Your task to perform on an android device: Open the map Image 0: 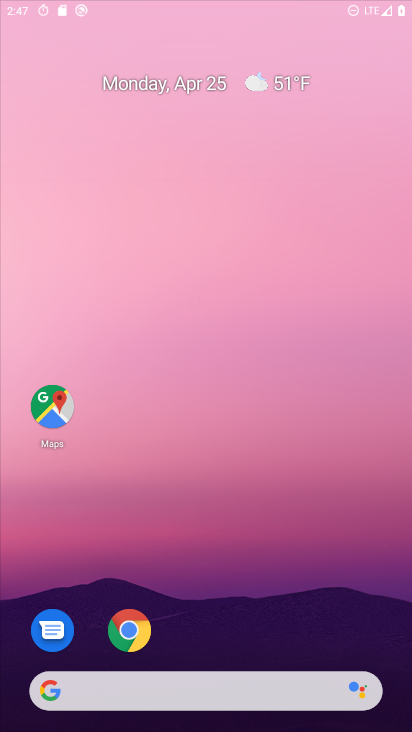
Step 0: click (269, 117)
Your task to perform on an android device: Open the map Image 1: 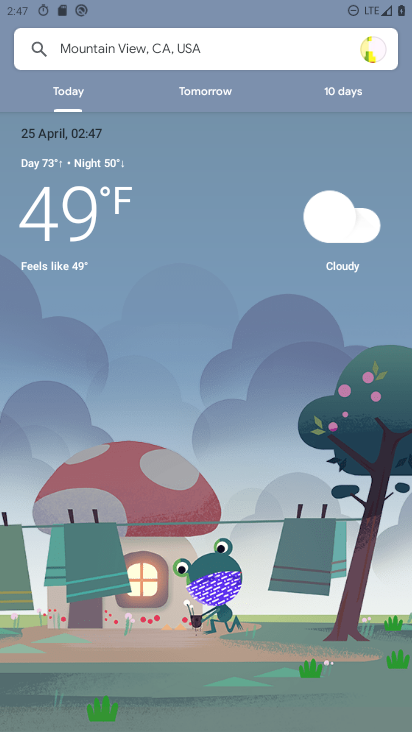
Step 1: press home button
Your task to perform on an android device: Open the map Image 2: 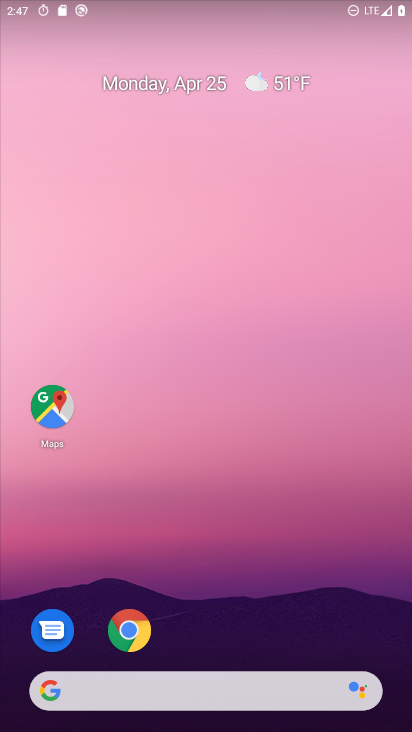
Step 2: click (59, 381)
Your task to perform on an android device: Open the map Image 3: 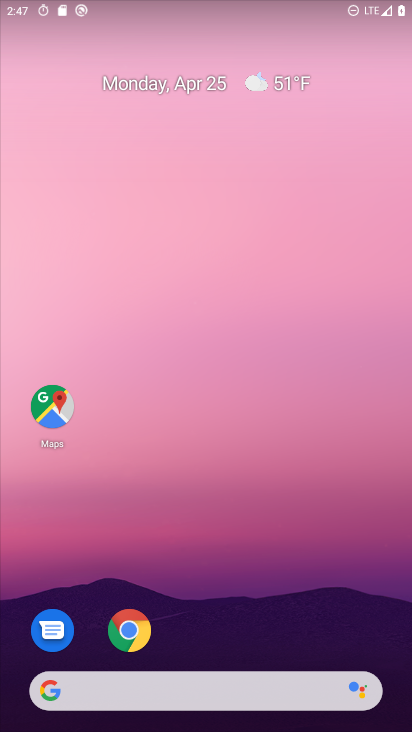
Step 3: click (49, 412)
Your task to perform on an android device: Open the map Image 4: 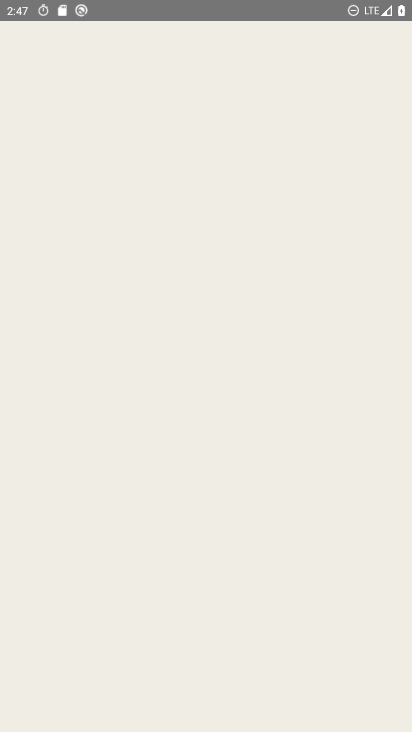
Step 4: drag from (257, 652) to (270, 105)
Your task to perform on an android device: Open the map Image 5: 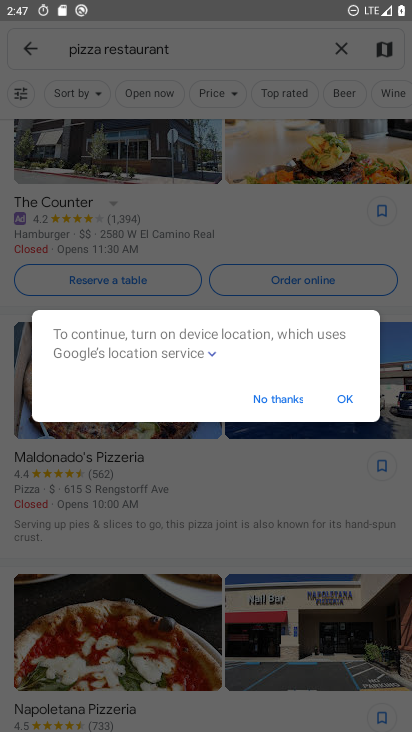
Step 5: drag from (229, 176) to (224, 615)
Your task to perform on an android device: Open the map Image 6: 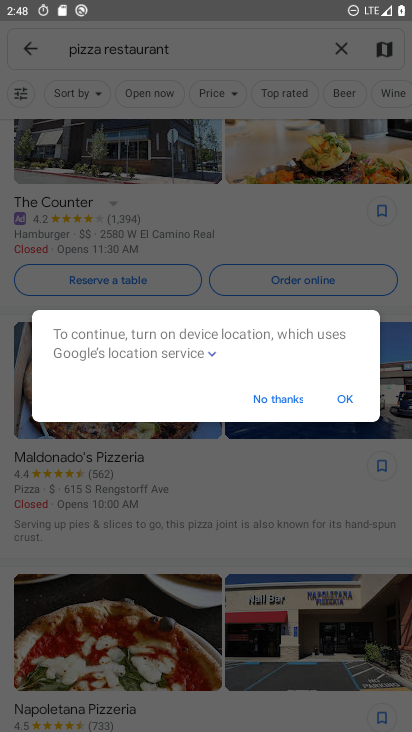
Step 6: click (274, 401)
Your task to perform on an android device: Open the map Image 7: 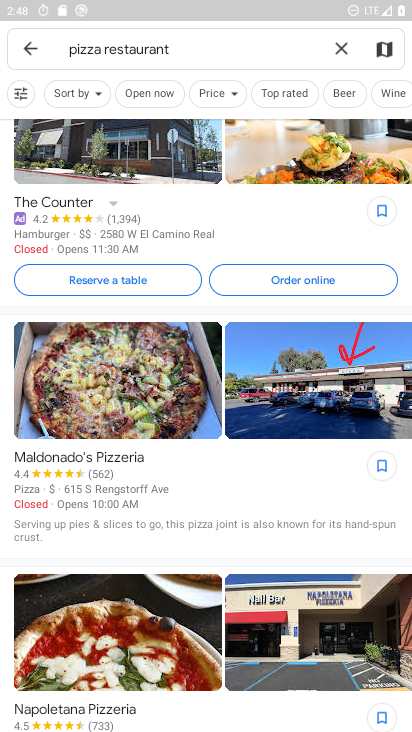
Step 7: task complete